Your task to perform on an android device: add a contact in the contacts app Image 0: 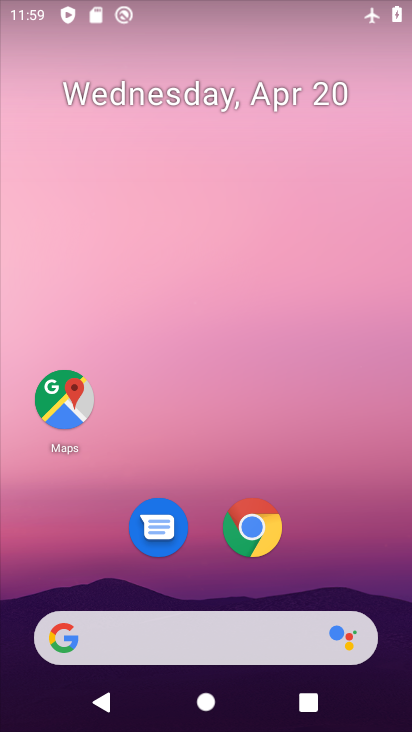
Step 0: drag from (273, 512) to (239, 81)
Your task to perform on an android device: add a contact in the contacts app Image 1: 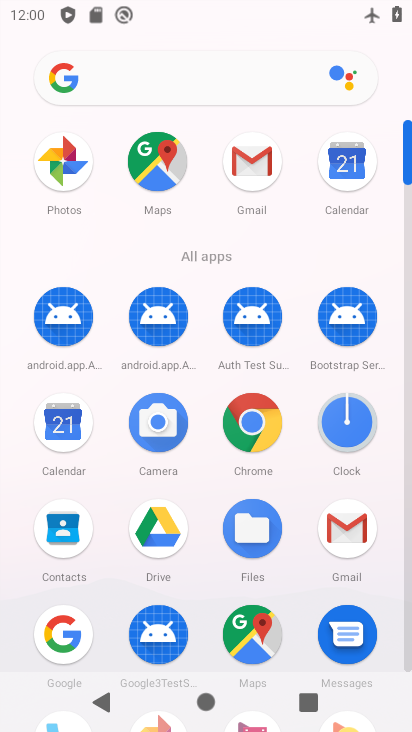
Step 1: click (407, 659)
Your task to perform on an android device: add a contact in the contacts app Image 2: 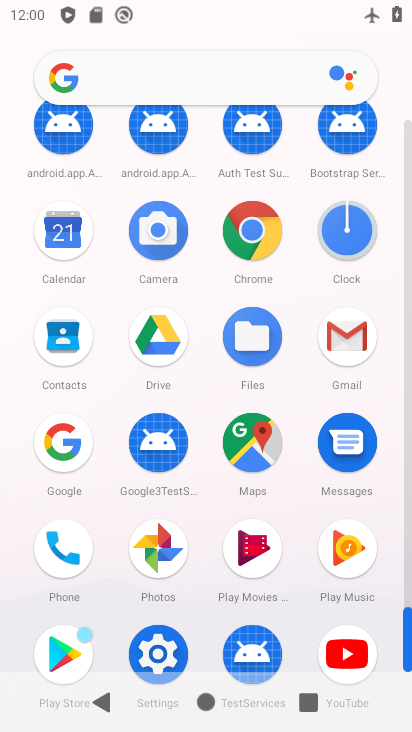
Step 2: click (71, 348)
Your task to perform on an android device: add a contact in the contacts app Image 3: 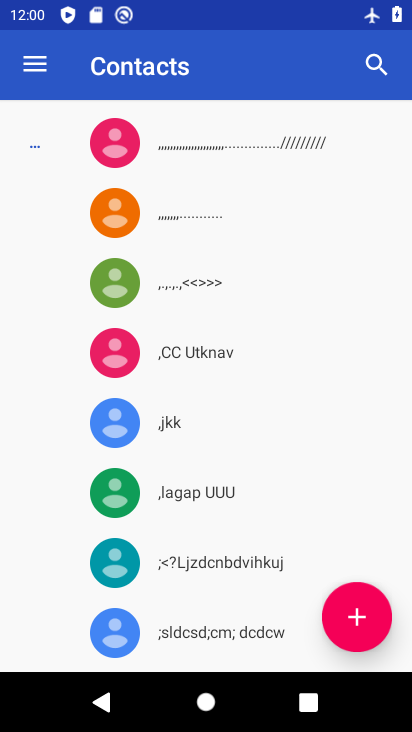
Step 3: click (341, 618)
Your task to perform on an android device: add a contact in the contacts app Image 4: 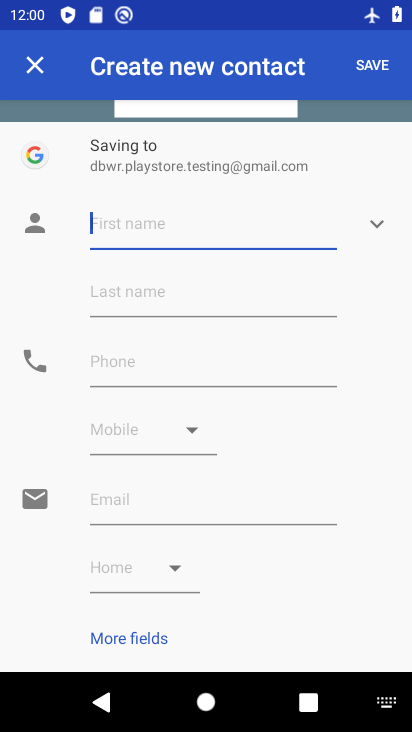
Step 4: type "samon"
Your task to perform on an android device: add a contact in the contacts app Image 5: 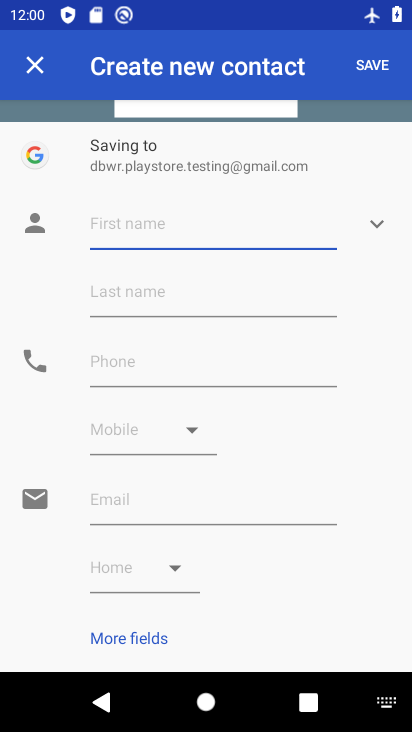
Step 5: click (358, 68)
Your task to perform on an android device: add a contact in the contacts app Image 6: 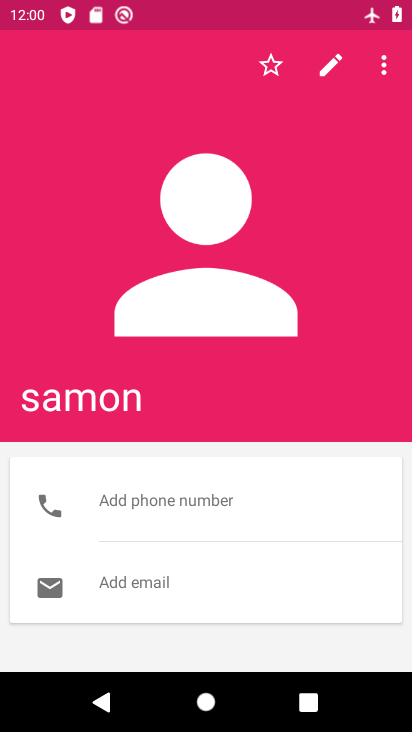
Step 6: task complete